Your task to perform on an android device: toggle priority inbox in the gmail app Image 0: 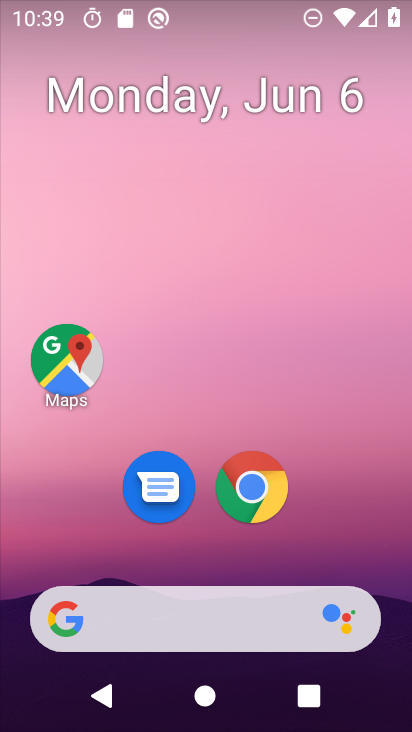
Step 0: drag from (400, 625) to (325, 16)
Your task to perform on an android device: toggle priority inbox in the gmail app Image 1: 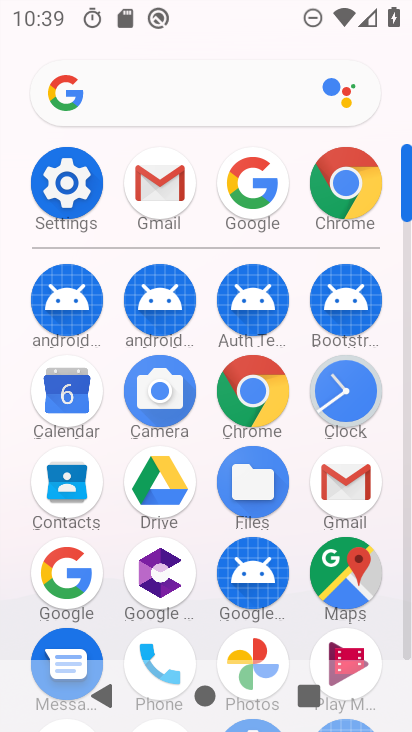
Step 1: click (365, 496)
Your task to perform on an android device: toggle priority inbox in the gmail app Image 2: 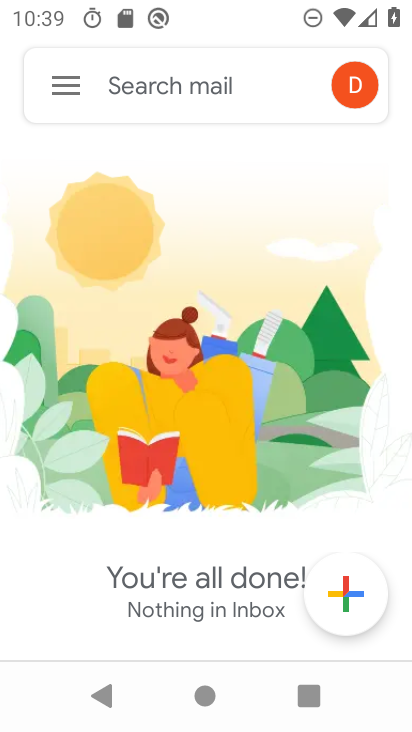
Step 2: click (67, 91)
Your task to perform on an android device: toggle priority inbox in the gmail app Image 3: 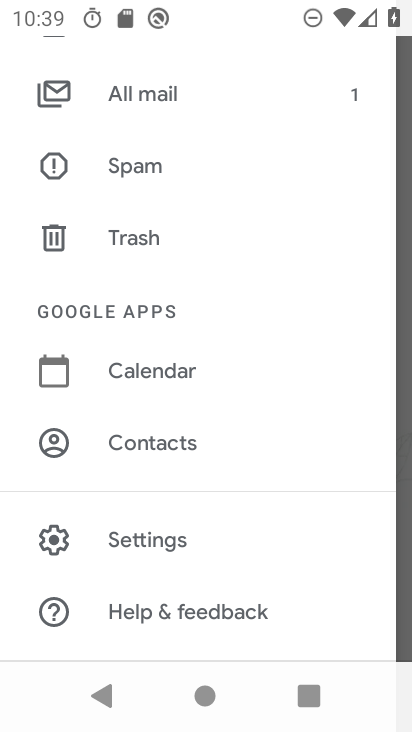
Step 3: click (161, 539)
Your task to perform on an android device: toggle priority inbox in the gmail app Image 4: 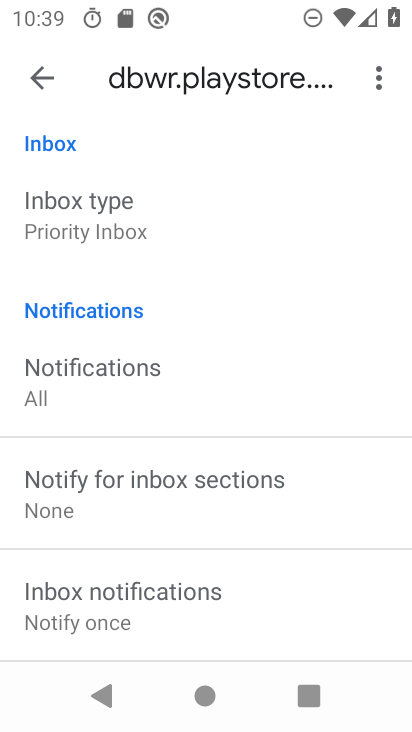
Step 4: click (149, 215)
Your task to perform on an android device: toggle priority inbox in the gmail app Image 5: 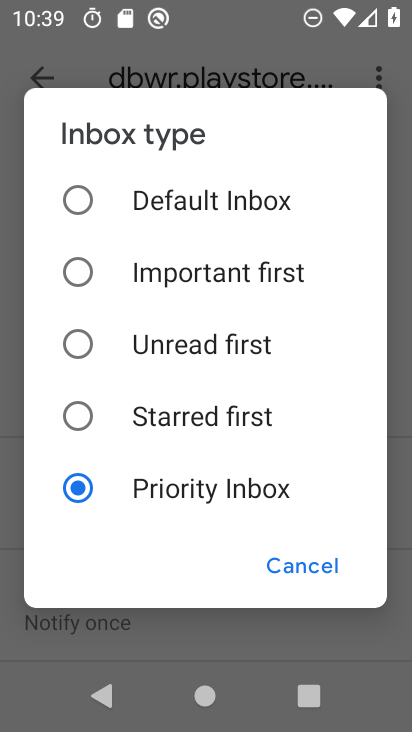
Step 5: click (81, 207)
Your task to perform on an android device: toggle priority inbox in the gmail app Image 6: 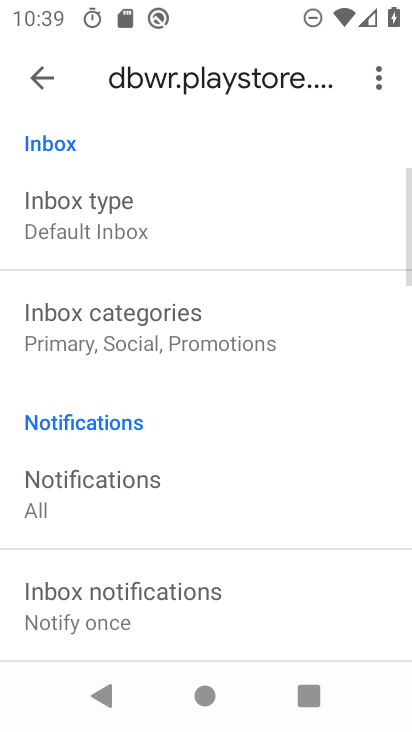
Step 6: task complete